Your task to perform on an android device: check storage Image 0: 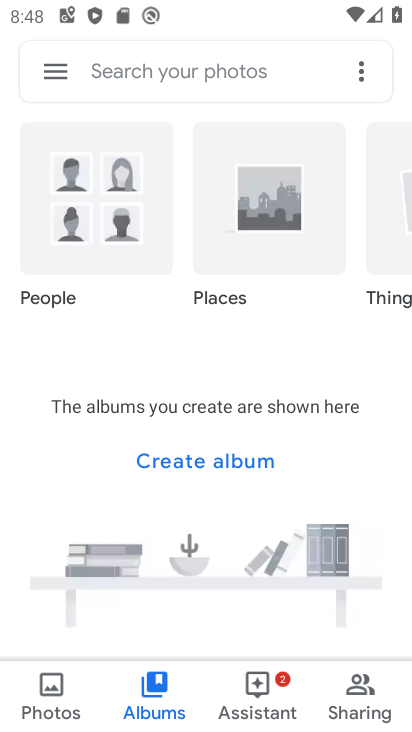
Step 0: press home button
Your task to perform on an android device: check storage Image 1: 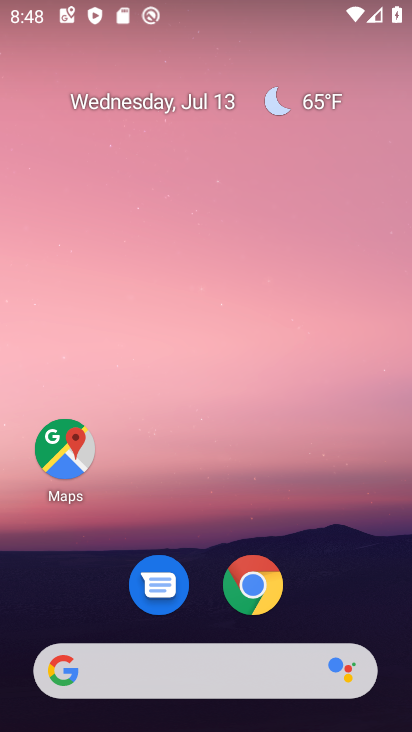
Step 1: drag from (201, 534) to (246, 0)
Your task to perform on an android device: check storage Image 2: 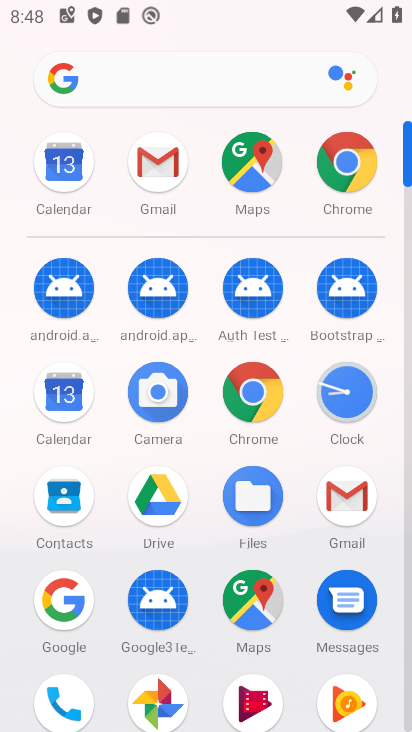
Step 2: drag from (194, 550) to (226, 123)
Your task to perform on an android device: check storage Image 3: 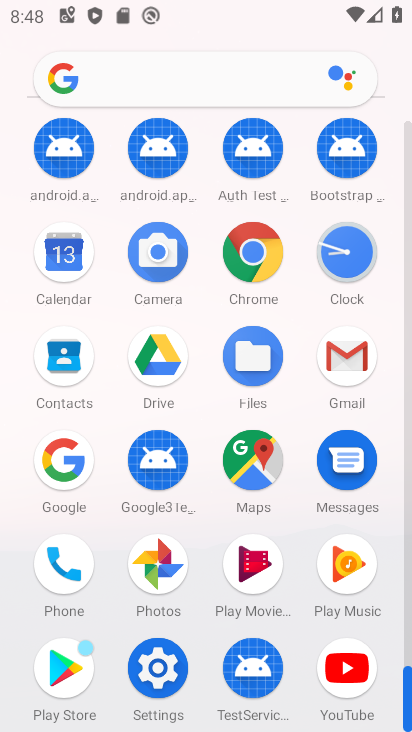
Step 3: click (158, 656)
Your task to perform on an android device: check storage Image 4: 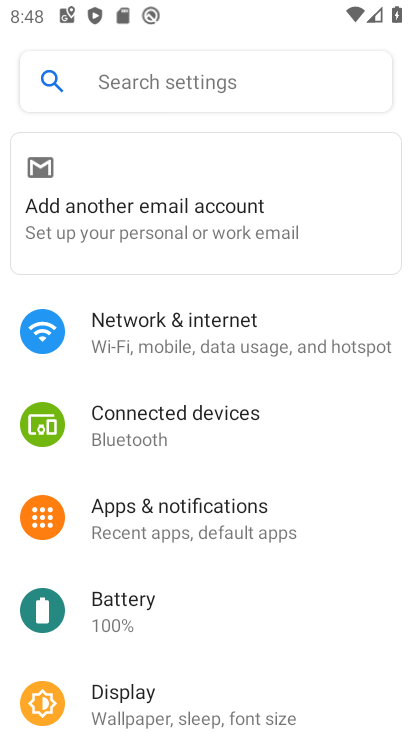
Step 4: drag from (240, 691) to (219, 133)
Your task to perform on an android device: check storage Image 5: 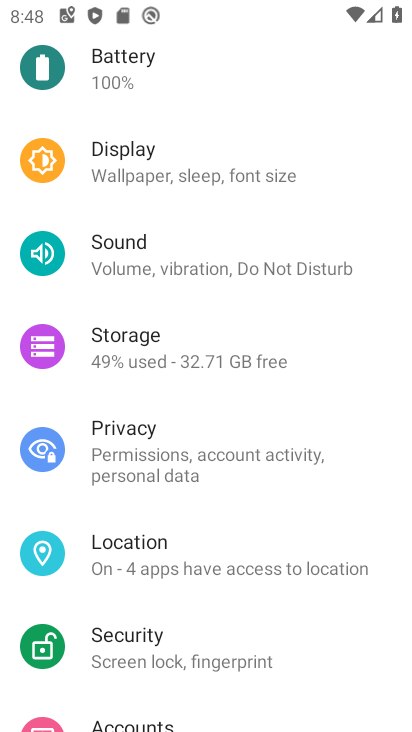
Step 5: click (215, 359)
Your task to perform on an android device: check storage Image 6: 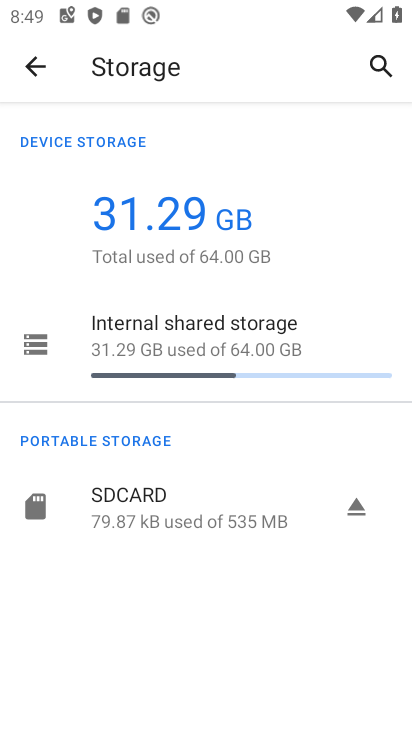
Step 6: task complete